Your task to perform on an android device: open a new tab in the chrome app Image 0: 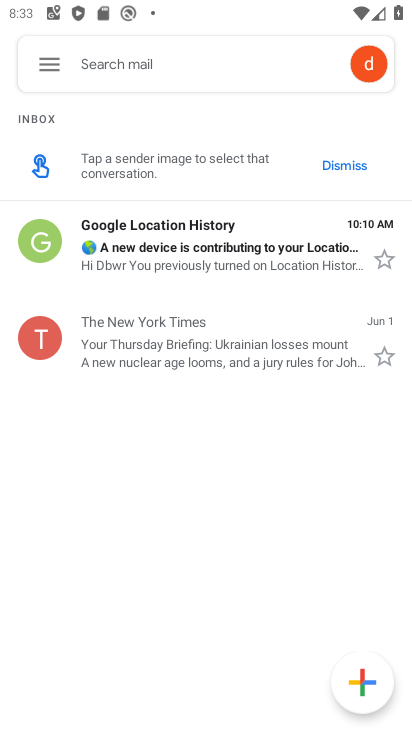
Step 0: press home button
Your task to perform on an android device: open a new tab in the chrome app Image 1: 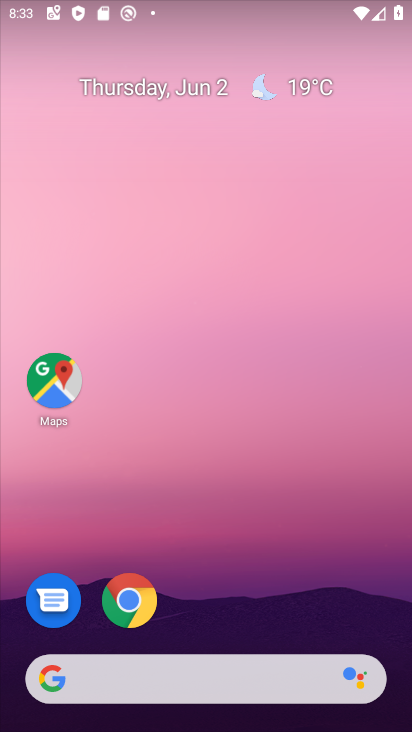
Step 1: drag from (356, 625) to (353, 291)
Your task to perform on an android device: open a new tab in the chrome app Image 2: 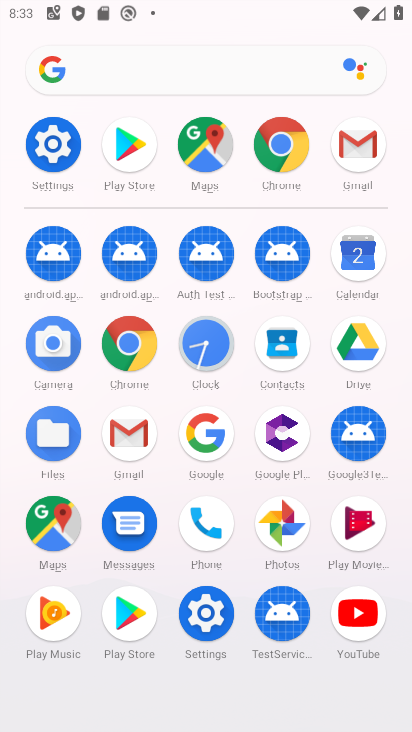
Step 2: click (151, 358)
Your task to perform on an android device: open a new tab in the chrome app Image 3: 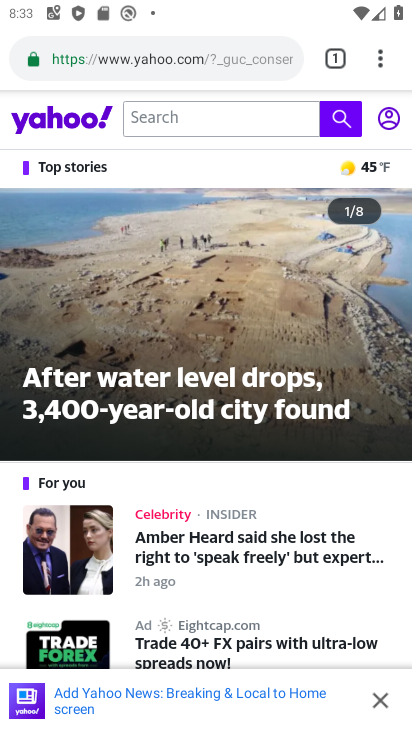
Step 3: click (383, 68)
Your task to perform on an android device: open a new tab in the chrome app Image 4: 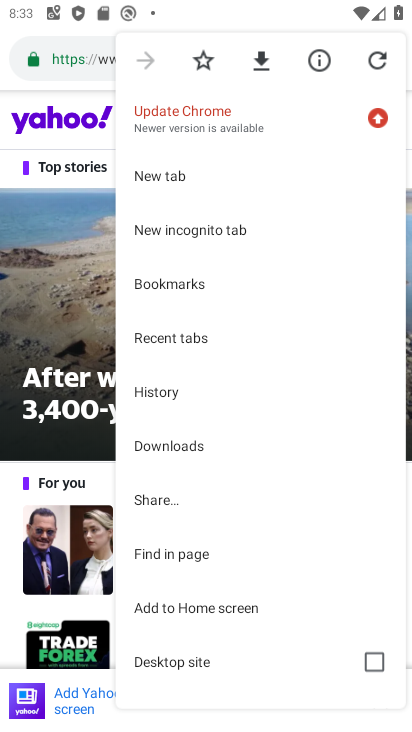
Step 4: click (249, 191)
Your task to perform on an android device: open a new tab in the chrome app Image 5: 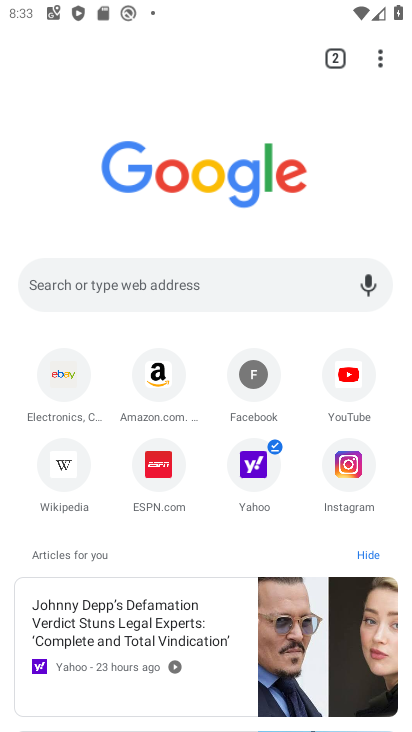
Step 5: task complete